Your task to perform on an android device: turn off notifications in google photos Image 0: 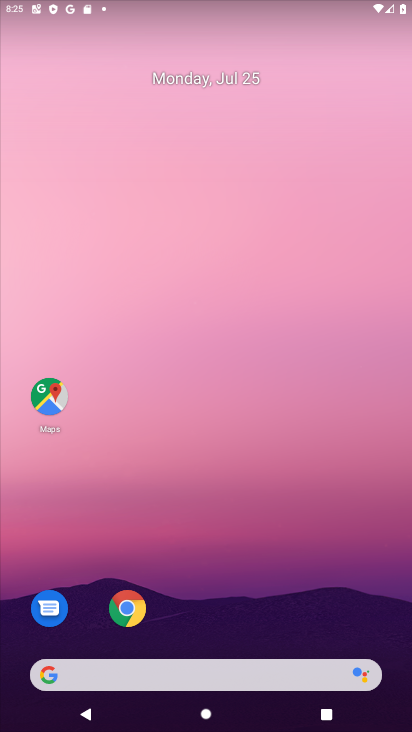
Step 0: drag from (210, 663) to (303, 77)
Your task to perform on an android device: turn off notifications in google photos Image 1: 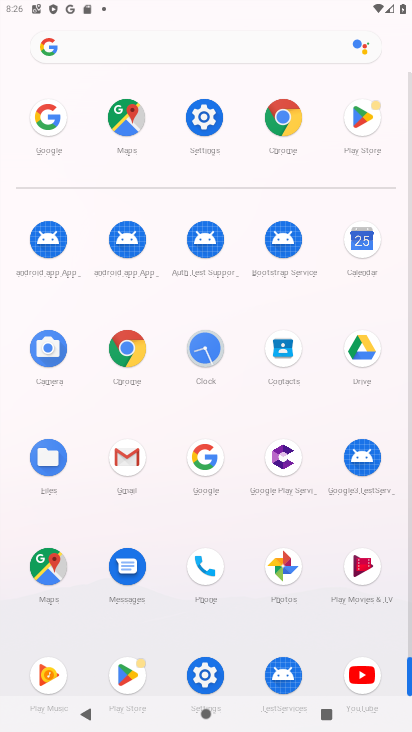
Step 1: click (290, 561)
Your task to perform on an android device: turn off notifications in google photos Image 2: 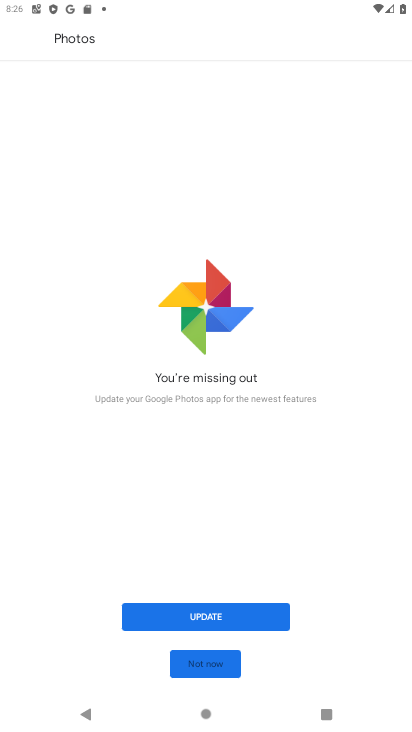
Step 2: click (199, 664)
Your task to perform on an android device: turn off notifications in google photos Image 3: 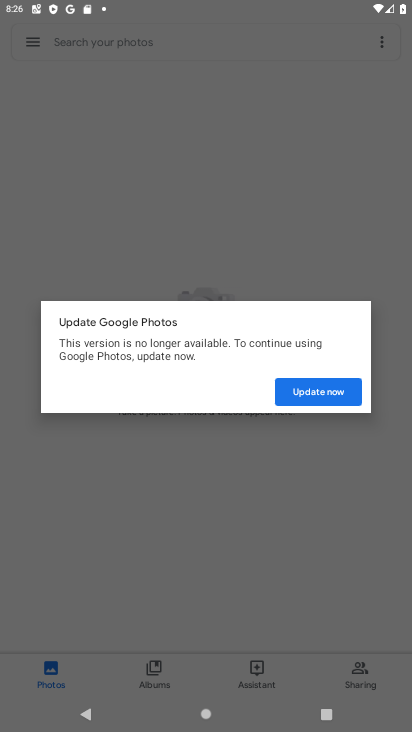
Step 3: click (331, 387)
Your task to perform on an android device: turn off notifications in google photos Image 4: 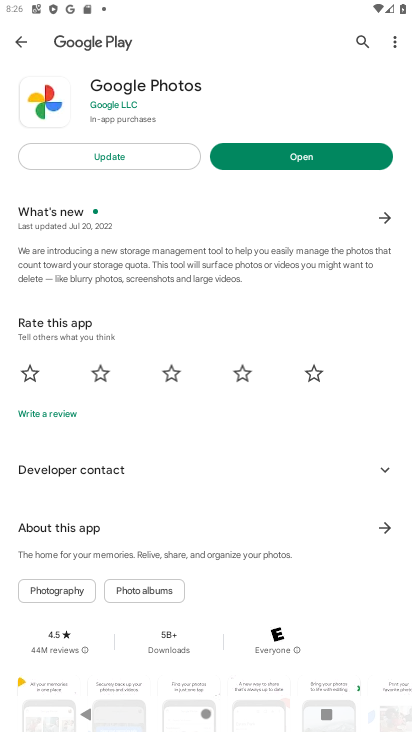
Step 4: press home button
Your task to perform on an android device: turn off notifications in google photos Image 5: 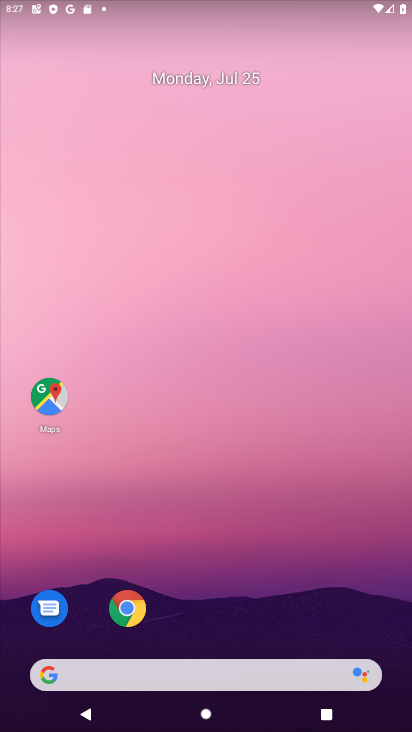
Step 5: drag from (204, 680) to (170, 236)
Your task to perform on an android device: turn off notifications in google photos Image 6: 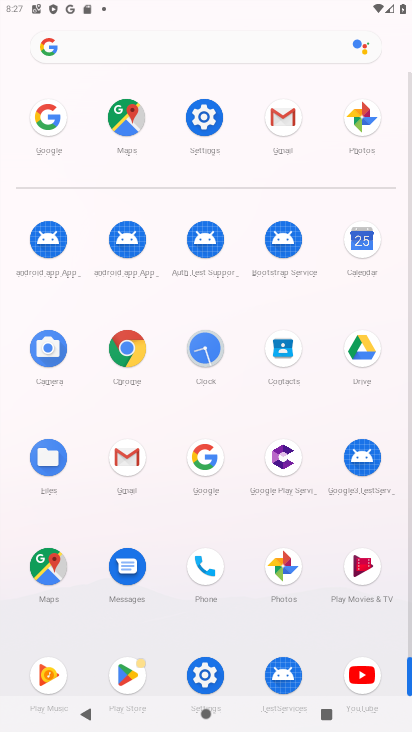
Step 6: click (281, 572)
Your task to perform on an android device: turn off notifications in google photos Image 7: 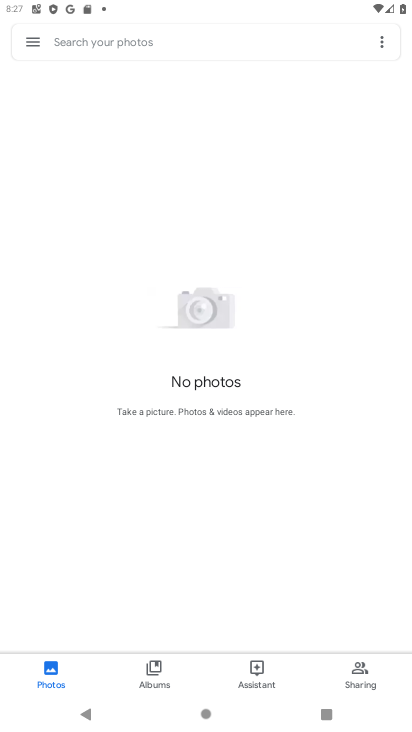
Step 7: click (36, 45)
Your task to perform on an android device: turn off notifications in google photos Image 8: 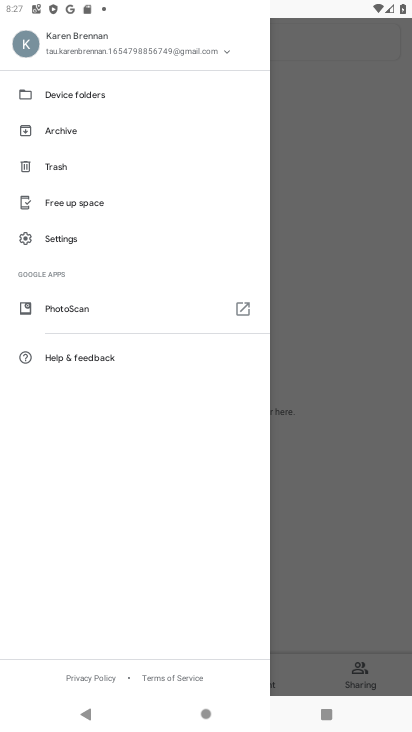
Step 8: click (68, 244)
Your task to perform on an android device: turn off notifications in google photos Image 9: 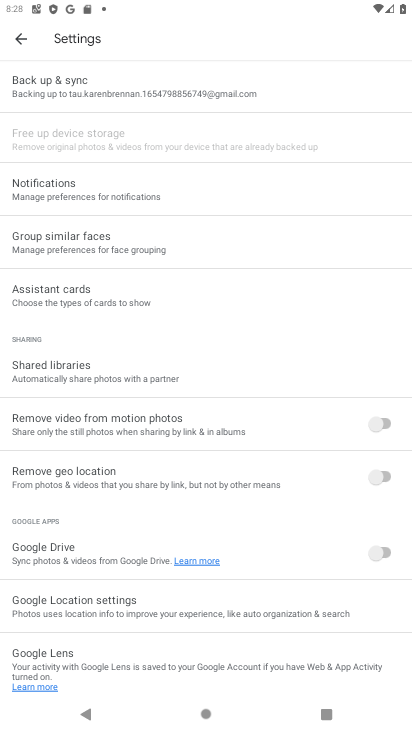
Step 9: click (135, 200)
Your task to perform on an android device: turn off notifications in google photos Image 10: 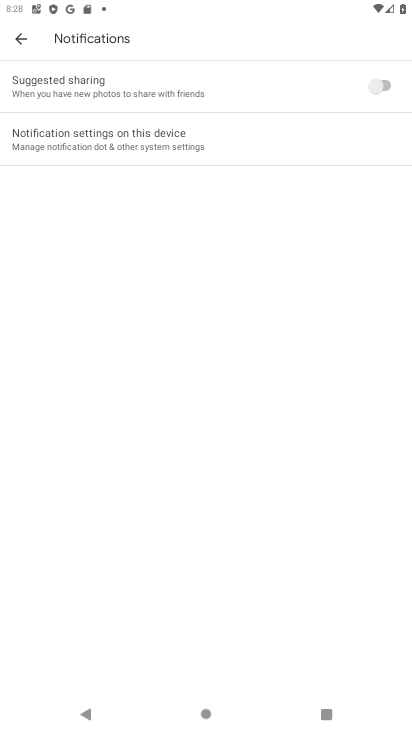
Step 10: click (177, 138)
Your task to perform on an android device: turn off notifications in google photos Image 11: 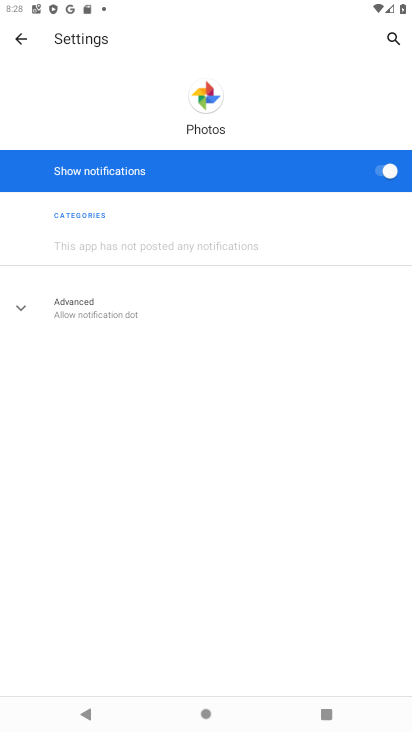
Step 11: click (363, 179)
Your task to perform on an android device: turn off notifications in google photos Image 12: 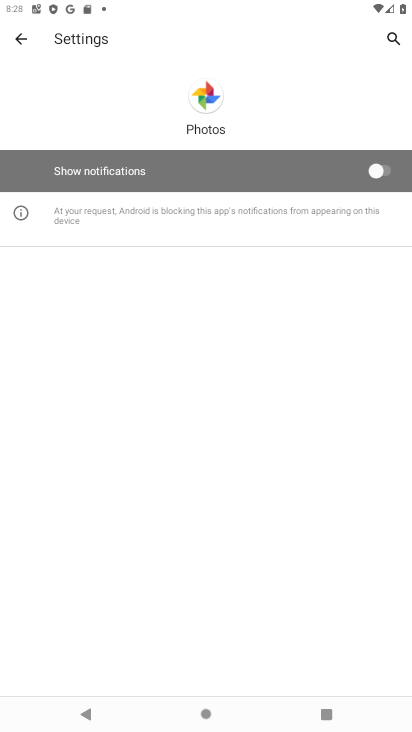
Step 12: task complete